Your task to perform on an android device: see sites visited before in the chrome app Image 0: 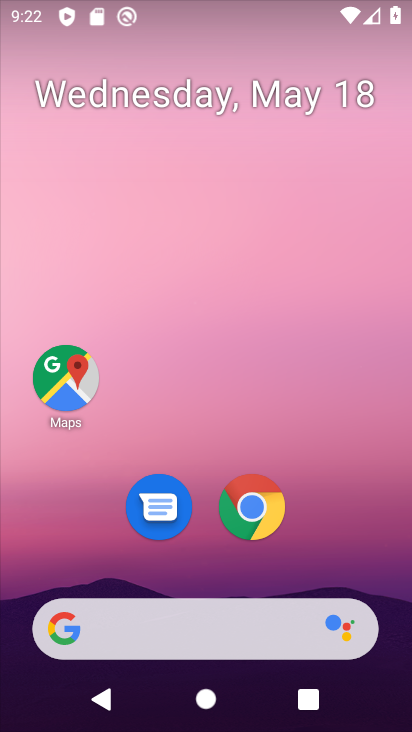
Step 0: click (253, 501)
Your task to perform on an android device: see sites visited before in the chrome app Image 1: 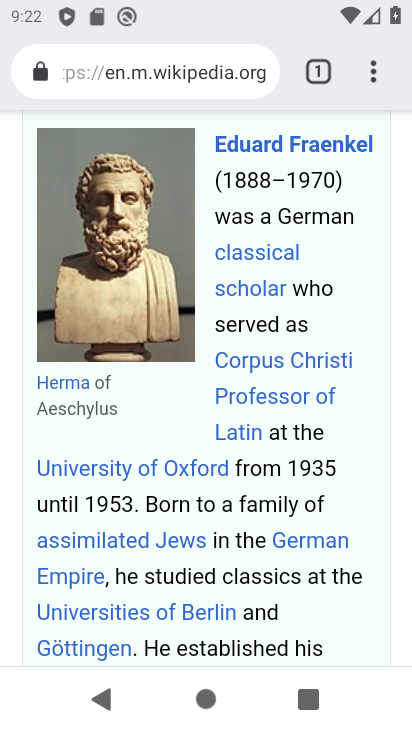
Step 1: task complete